Your task to perform on an android device: Go to notification settings Image 0: 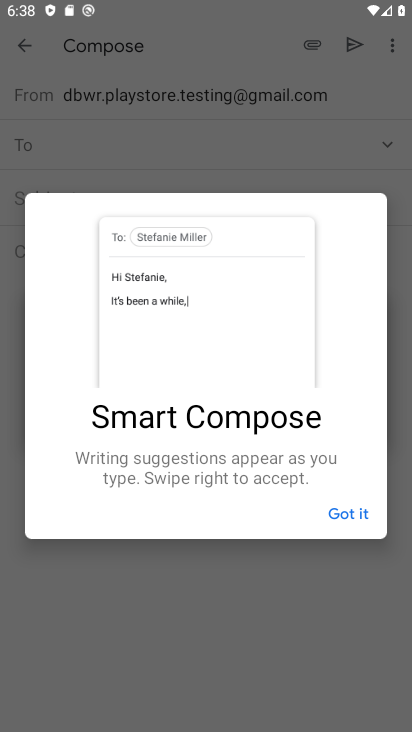
Step 0: press home button
Your task to perform on an android device: Go to notification settings Image 1: 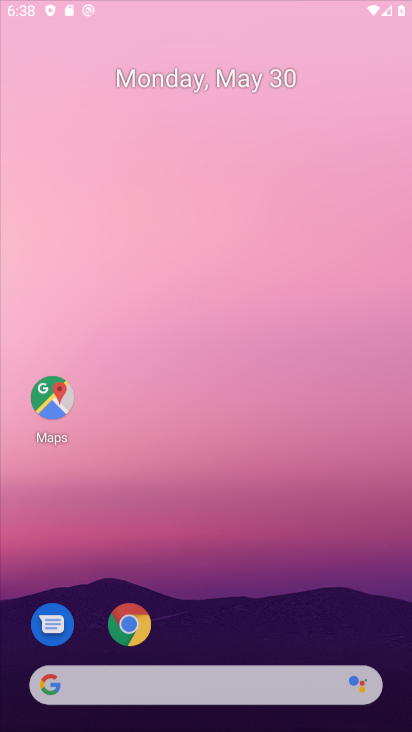
Step 1: drag from (328, 623) to (340, 28)
Your task to perform on an android device: Go to notification settings Image 2: 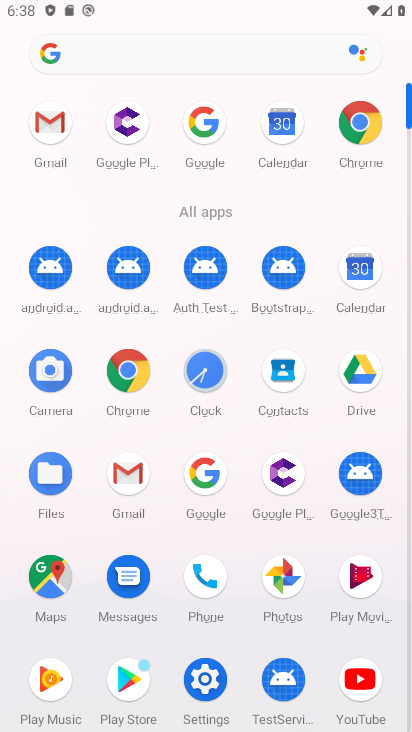
Step 2: click (198, 675)
Your task to perform on an android device: Go to notification settings Image 3: 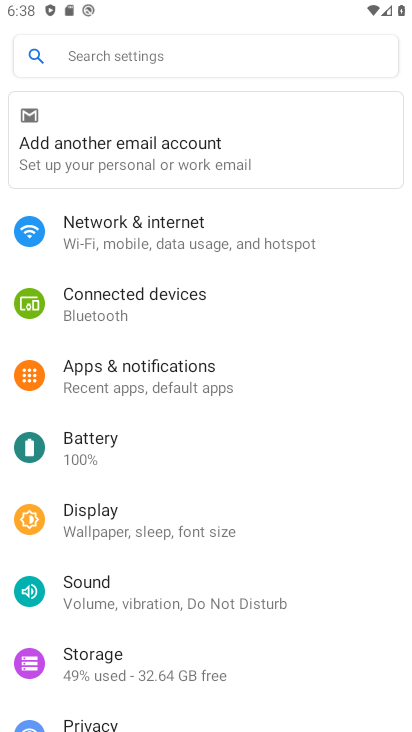
Step 3: click (180, 352)
Your task to perform on an android device: Go to notification settings Image 4: 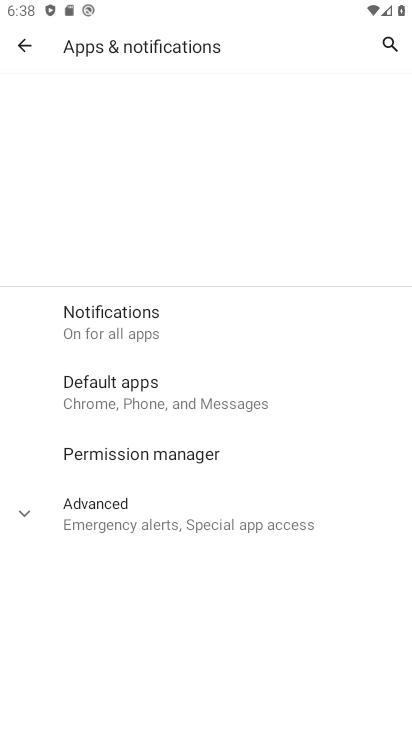
Step 4: click (133, 307)
Your task to perform on an android device: Go to notification settings Image 5: 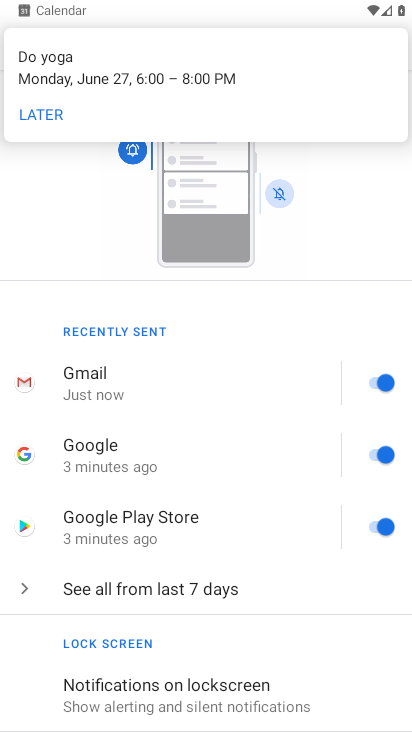
Step 5: task complete